Your task to perform on an android device: check data usage Image 0: 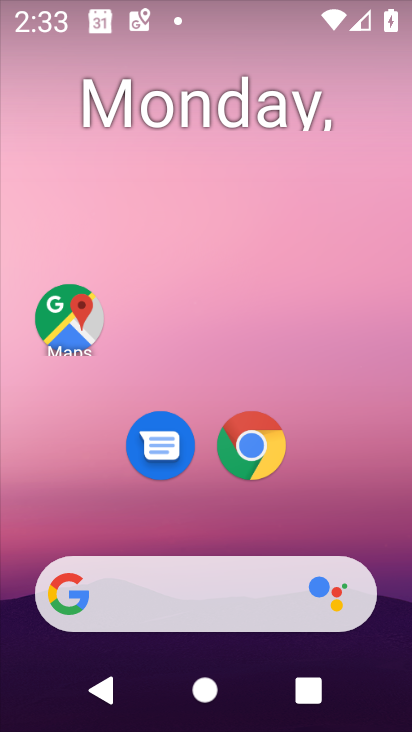
Step 0: drag from (320, 353) to (304, 62)
Your task to perform on an android device: check data usage Image 1: 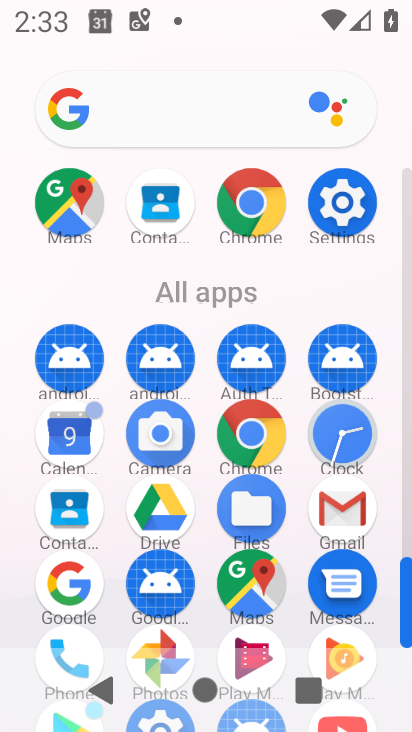
Step 1: click (325, 209)
Your task to perform on an android device: check data usage Image 2: 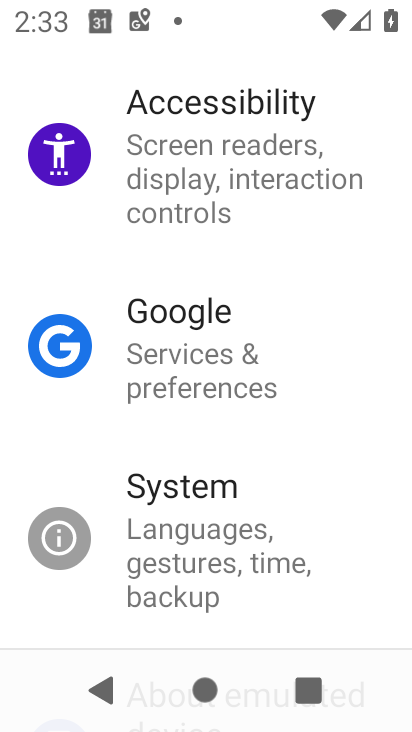
Step 2: drag from (246, 557) to (273, 692)
Your task to perform on an android device: check data usage Image 3: 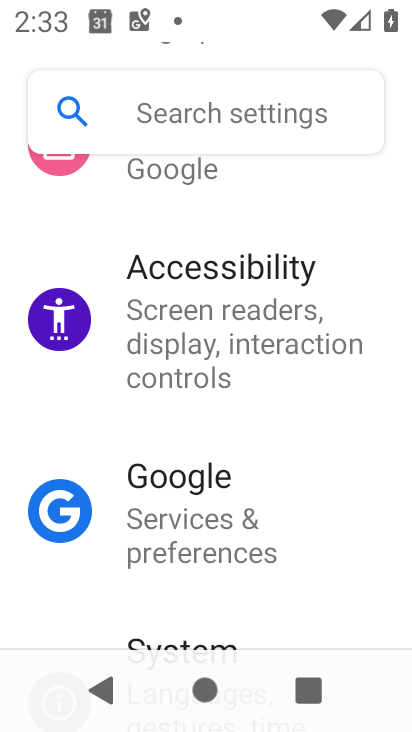
Step 3: drag from (247, 238) to (252, 600)
Your task to perform on an android device: check data usage Image 4: 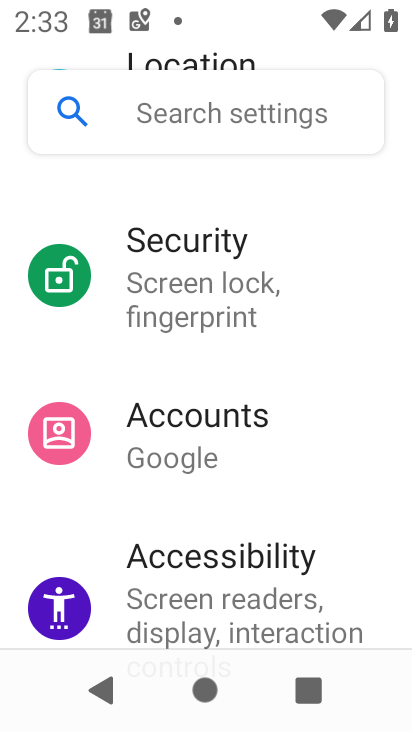
Step 4: drag from (241, 295) to (256, 590)
Your task to perform on an android device: check data usage Image 5: 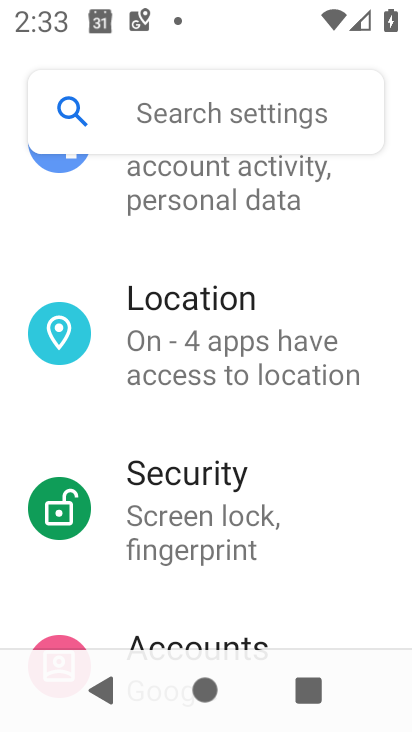
Step 5: drag from (274, 257) to (268, 486)
Your task to perform on an android device: check data usage Image 6: 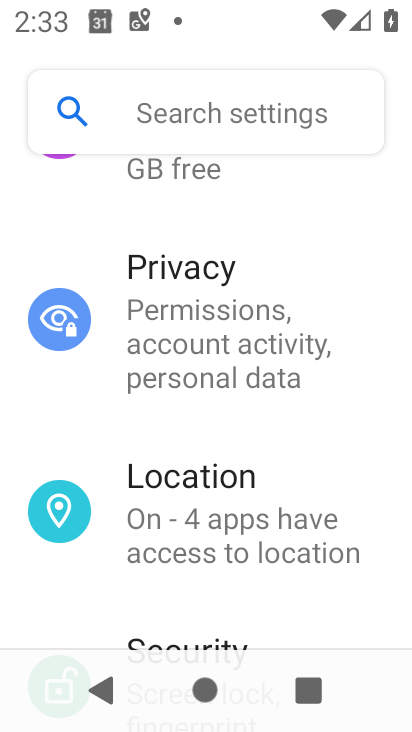
Step 6: drag from (274, 205) to (289, 528)
Your task to perform on an android device: check data usage Image 7: 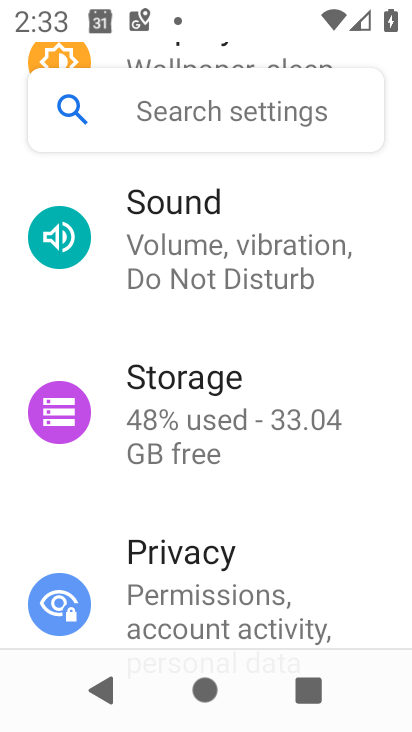
Step 7: drag from (238, 308) to (276, 576)
Your task to perform on an android device: check data usage Image 8: 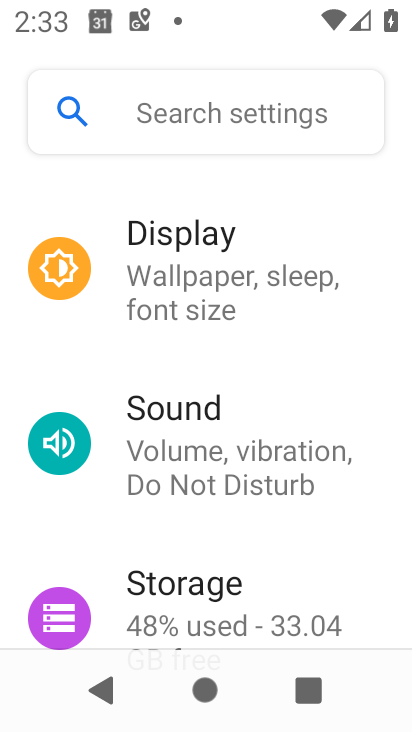
Step 8: drag from (269, 421) to (295, 604)
Your task to perform on an android device: check data usage Image 9: 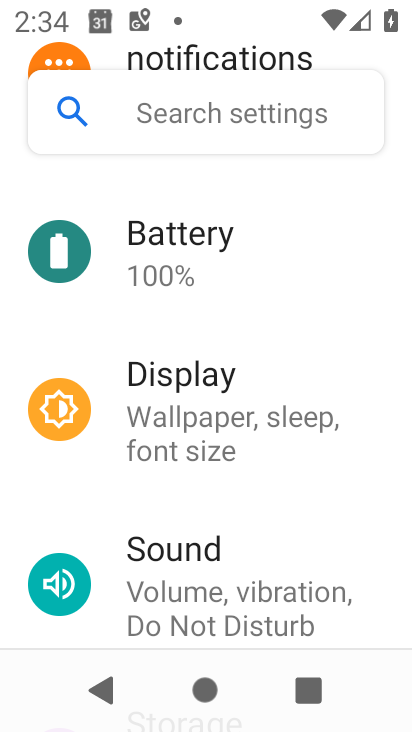
Step 9: drag from (241, 303) to (235, 547)
Your task to perform on an android device: check data usage Image 10: 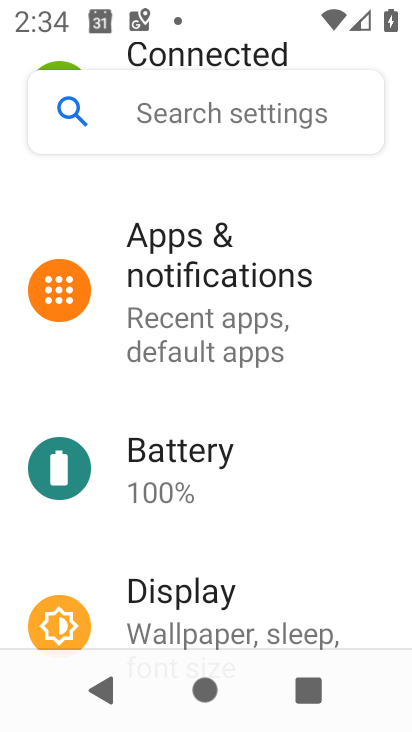
Step 10: drag from (250, 328) to (291, 579)
Your task to perform on an android device: check data usage Image 11: 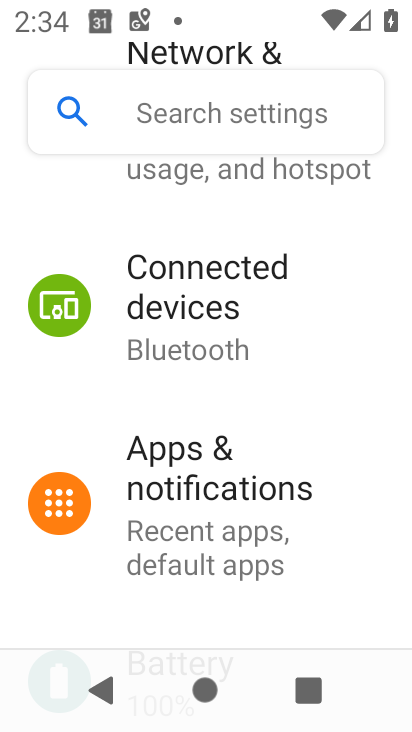
Step 11: drag from (267, 256) to (264, 529)
Your task to perform on an android device: check data usage Image 12: 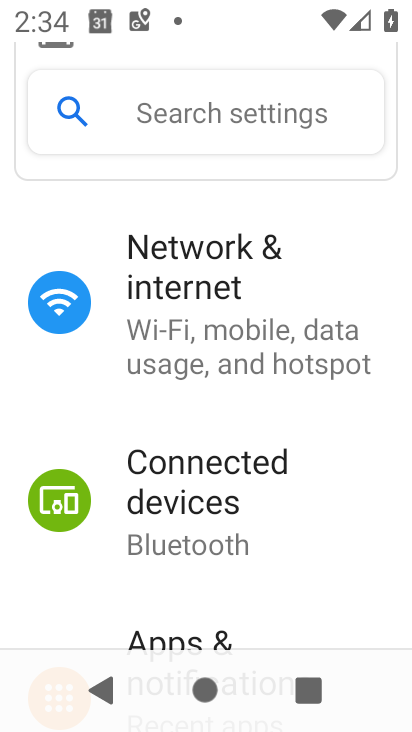
Step 12: click (229, 354)
Your task to perform on an android device: check data usage Image 13: 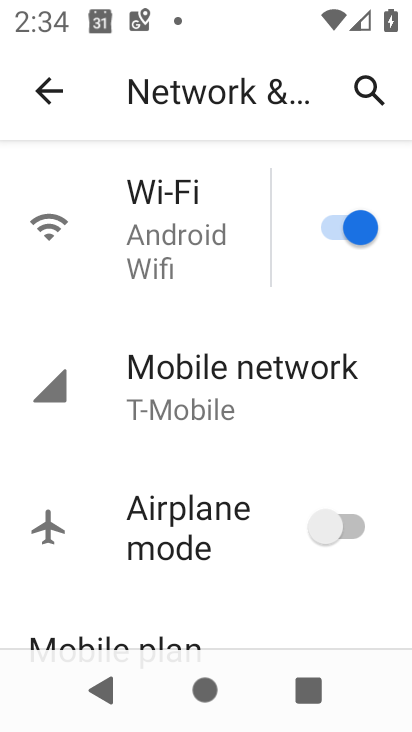
Step 13: drag from (236, 496) to (225, 257)
Your task to perform on an android device: check data usage Image 14: 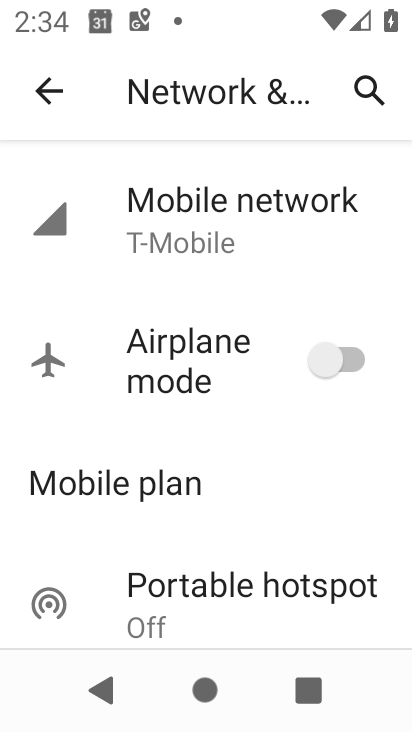
Step 14: click (210, 247)
Your task to perform on an android device: check data usage Image 15: 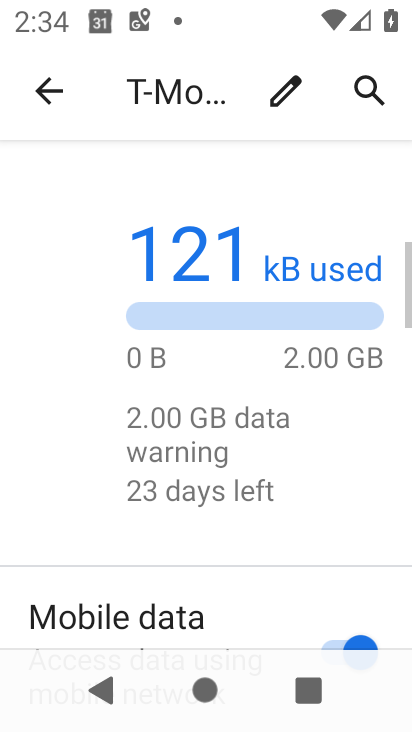
Step 15: drag from (214, 553) to (231, 165)
Your task to perform on an android device: check data usage Image 16: 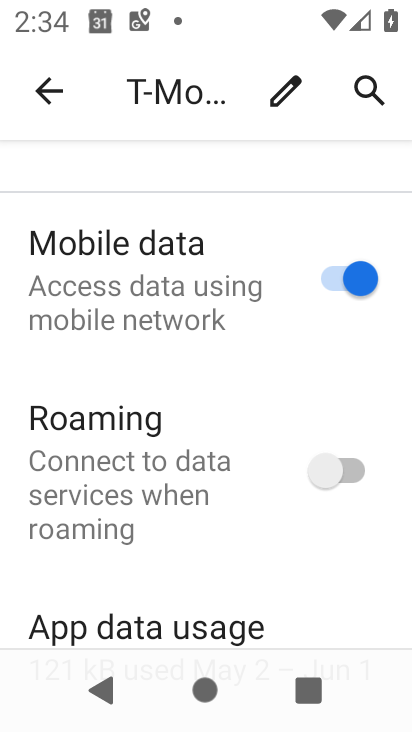
Step 16: drag from (239, 558) to (227, 293)
Your task to perform on an android device: check data usage Image 17: 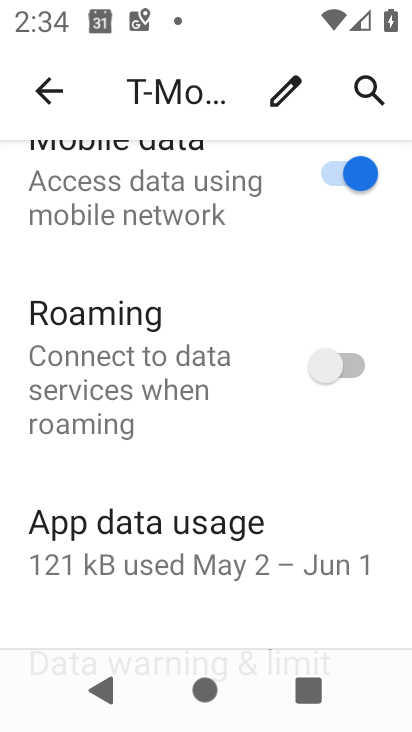
Step 17: click (176, 514)
Your task to perform on an android device: check data usage Image 18: 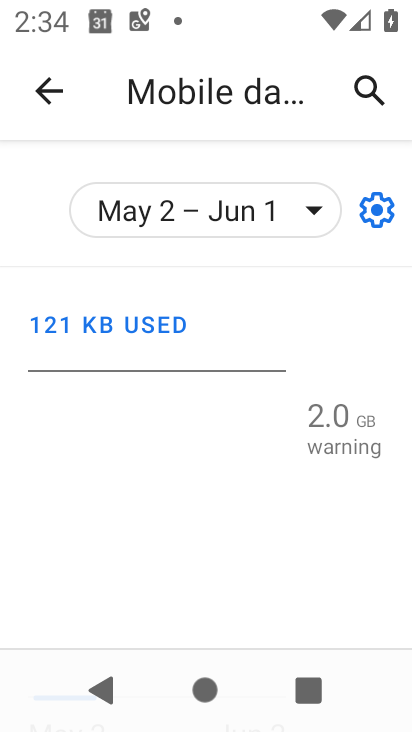
Step 18: task complete